Your task to perform on an android device: turn on data saver in the chrome app Image 0: 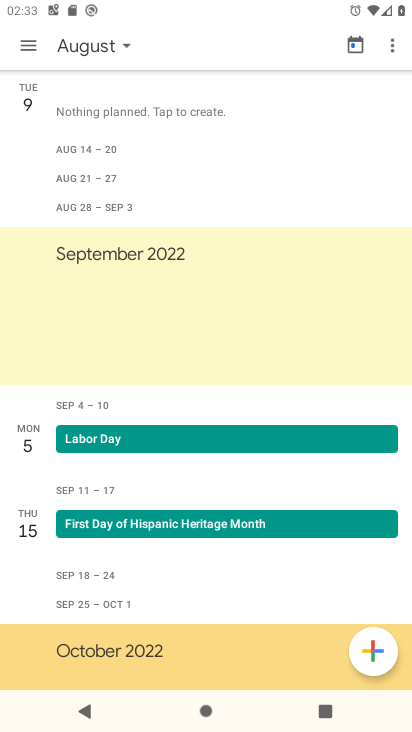
Step 0: press home button
Your task to perform on an android device: turn on data saver in the chrome app Image 1: 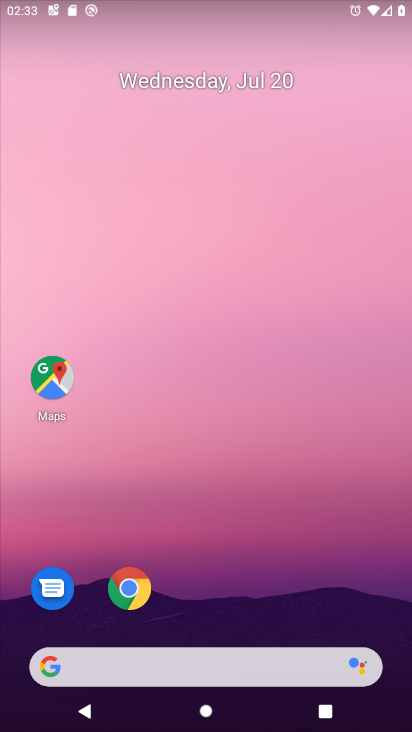
Step 1: drag from (217, 354) to (217, 224)
Your task to perform on an android device: turn on data saver in the chrome app Image 2: 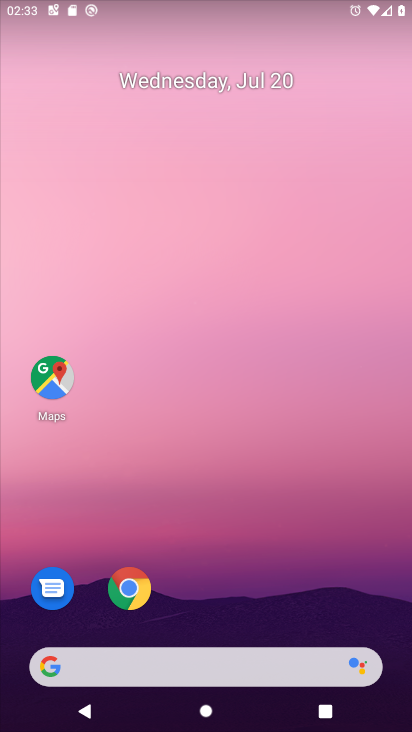
Step 2: drag from (208, 625) to (213, 190)
Your task to perform on an android device: turn on data saver in the chrome app Image 3: 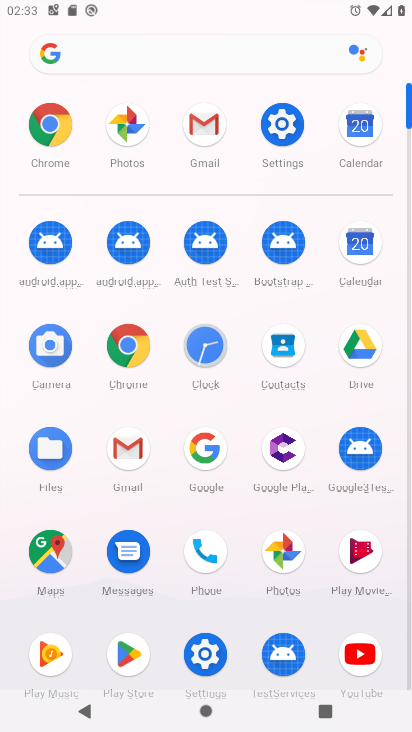
Step 3: click (40, 117)
Your task to perform on an android device: turn on data saver in the chrome app Image 4: 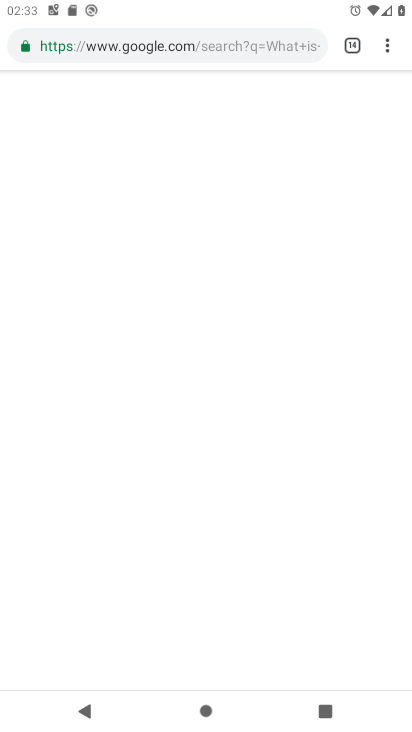
Step 4: click (399, 46)
Your task to perform on an android device: turn on data saver in the chrome app Image 5: 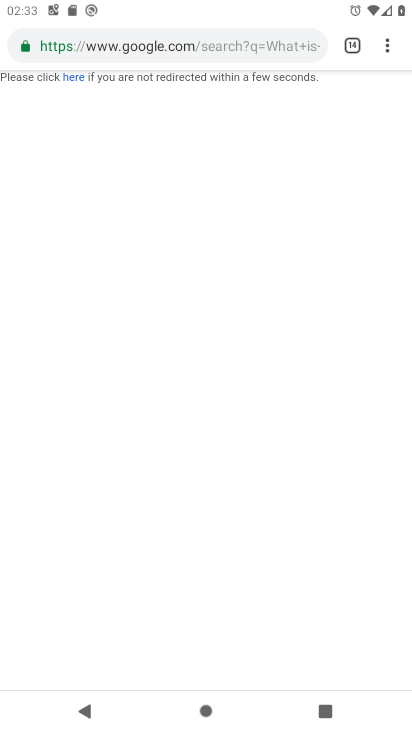
Step 5: click (399, 46)
Your task to perform on an android device: turn on data saver in the chrome app Image 6: 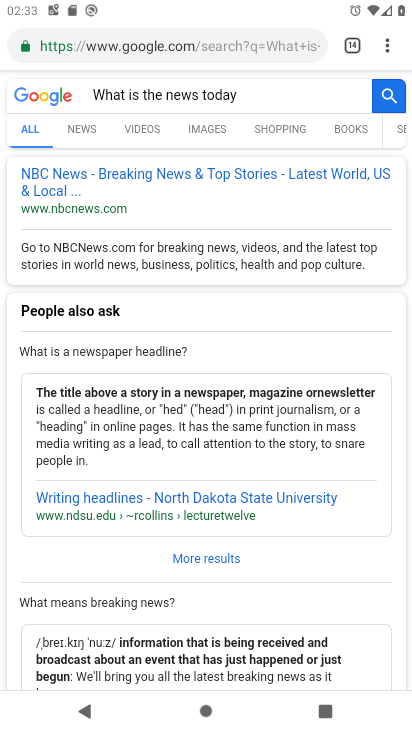
Step 6: click (388, 46)
Your task to perform on an android device: turn on data saver in the chrome app Image 7: 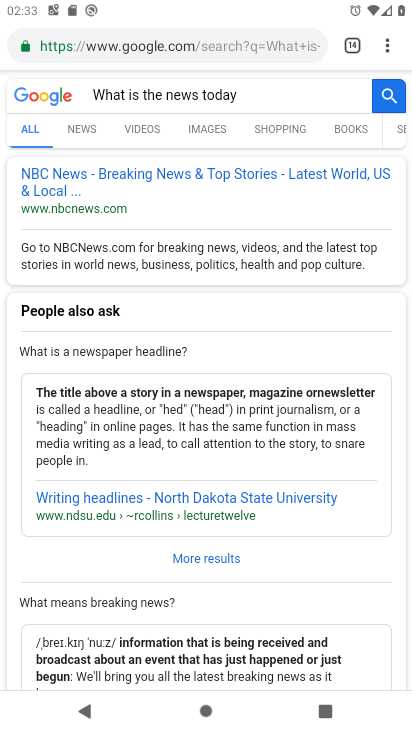
Step 7: click (405, 31)
Your task to perform on an android device: turn on data saver in the chrome app Image 8: 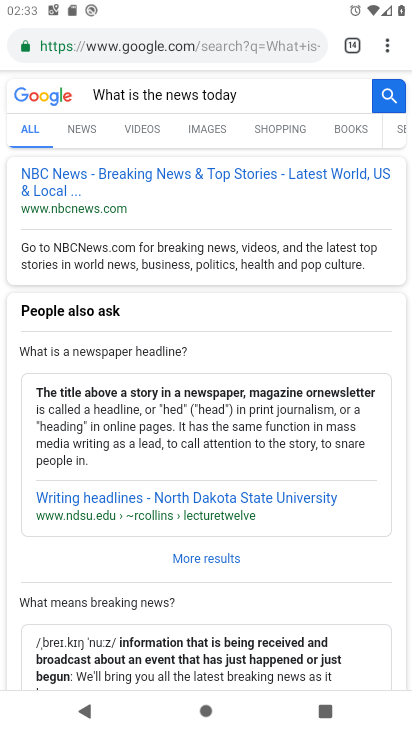
Step 8: click (393, 51)
Your task to perform on an android device: turn on data saver in the chrome app Image 9: 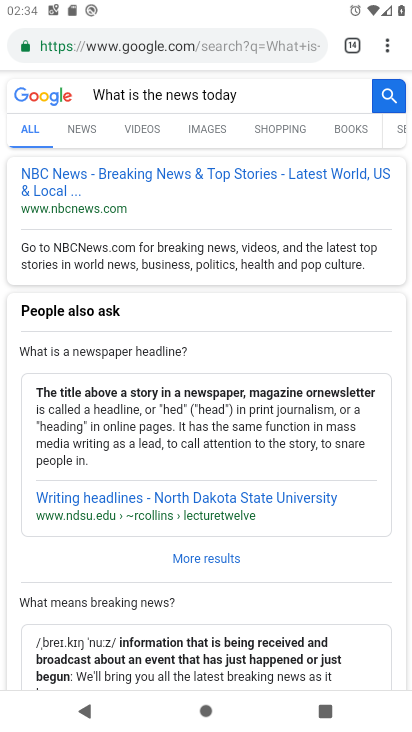
Step 9: click (394, 48)
Your task to perform on an android device: turn on data saver in the chrome app Image 10: 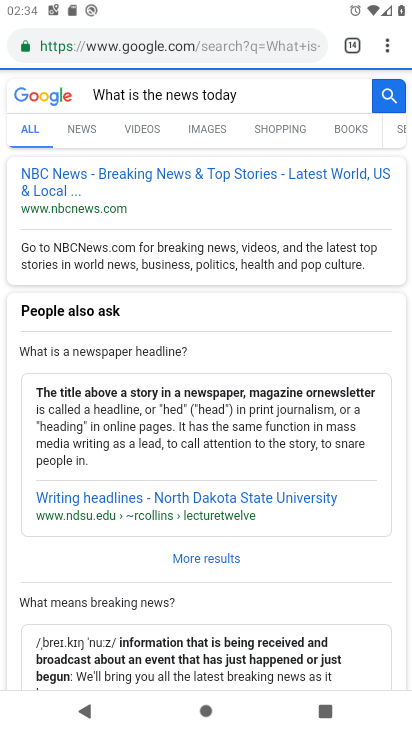
Step 10: click (392, 32)
Your task to perform on an android device: turn on data saver in the chrome app Image 11: 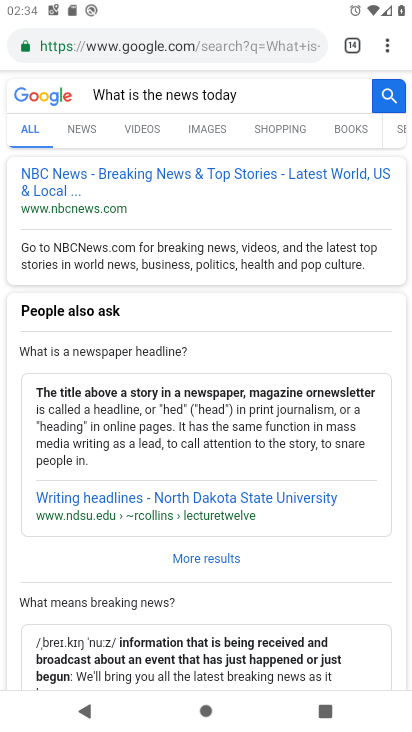
Step 11: click (392, 41)
Your task to perform on an android device: turn on data saver in the chrome app Image 12: 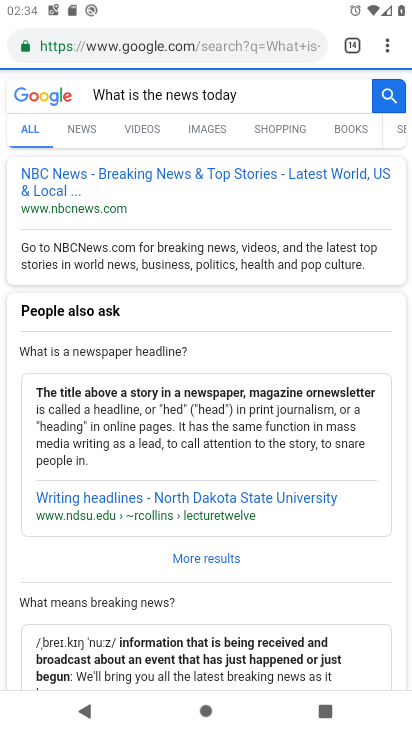
Step 12: click (392, 39)
Your task to perform on an android device: turn on data saver in the chrome app Image 13: 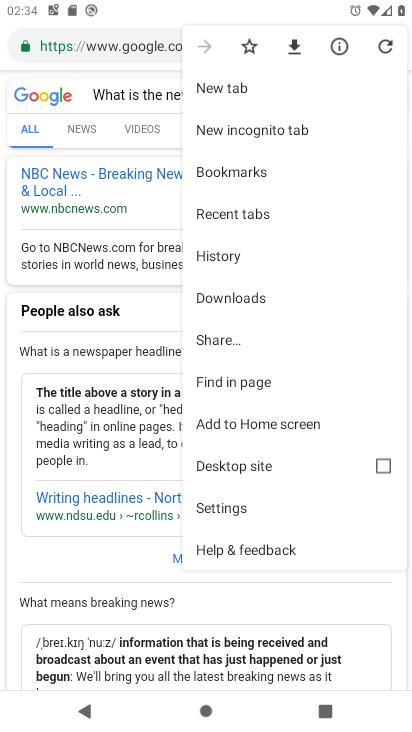
Step 13: click (242, 511)
Your task to perform on an android device: turn on data saver in the chrome app Image 14: 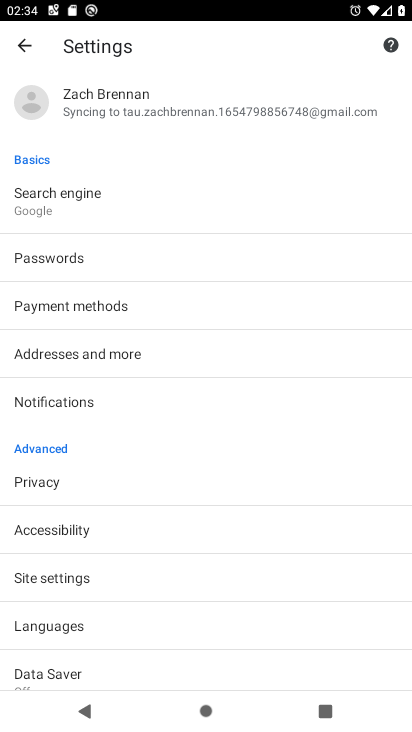
Step 14: click (90, 661)
Your task to perform on an android device: turn on data saver in the chrome app Image 15: 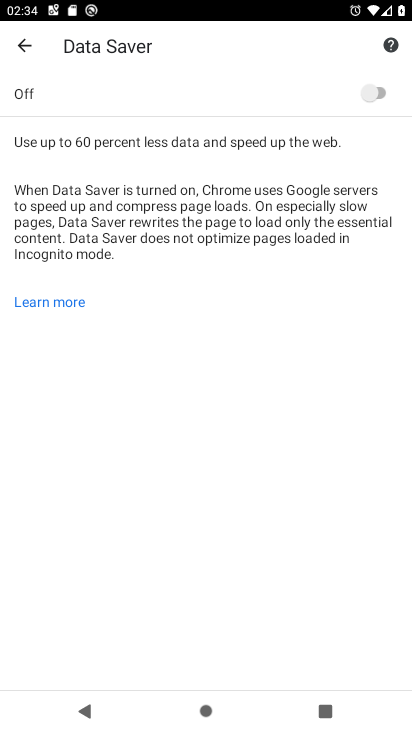
Step 15: click (364, 86)
Your task to perform on an android device: turn on data saver in the chrome app Image 16: 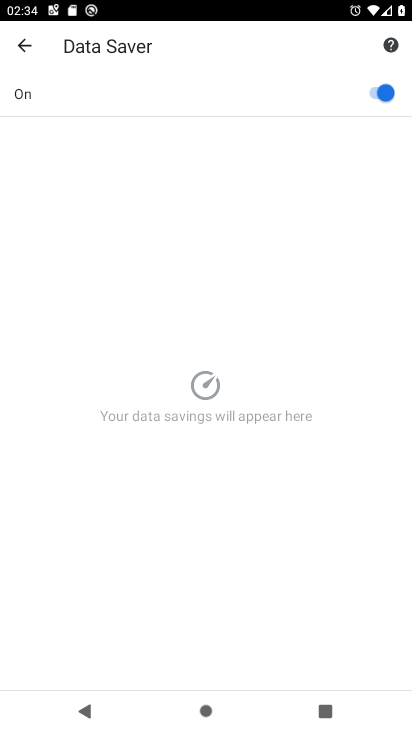
Step 16: task complete